Your task to perform on an android device: change keyboard looks Image 0: 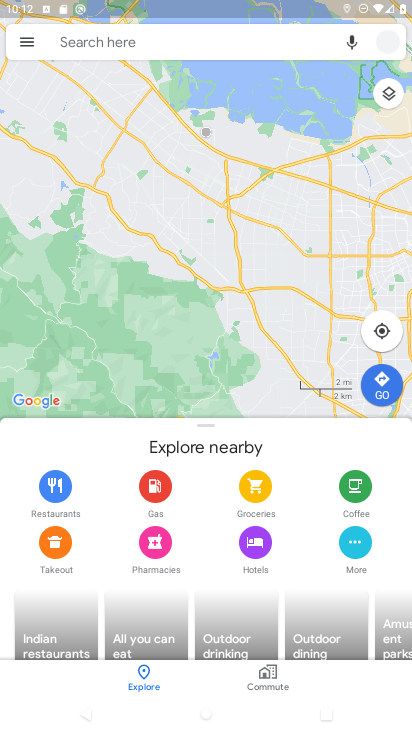
Step 0: press home button
Your task to perform on an android device: change keyboard looks Image 1: 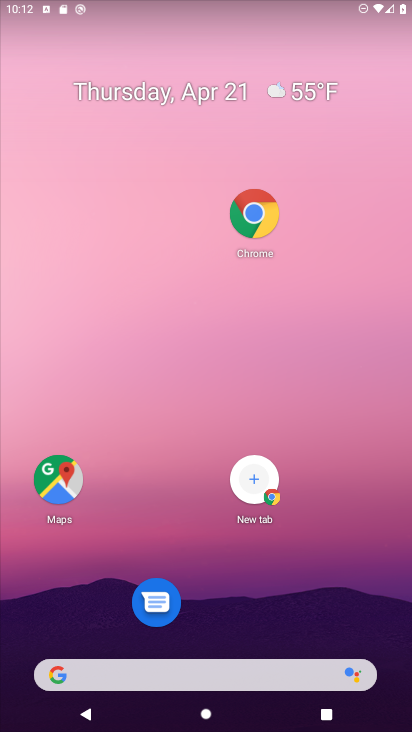
Step 1: drag from (209, 541) to (201, 105)
Your task to perform on an android device: change keyboard looks Image 2: 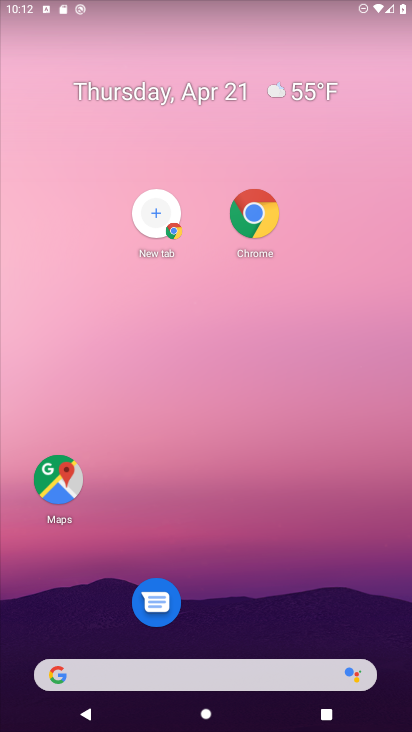
Step 2: drag from (272, 460) to (264, 102)
Your task to perform on an android device: change keyboard looks Image 3: 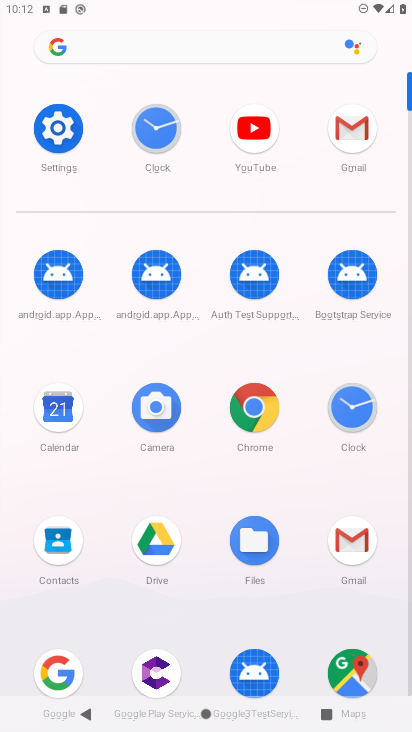
Step 3: click (74, 136)
Your task to perform on an android device: change keyboard looks Image 4: 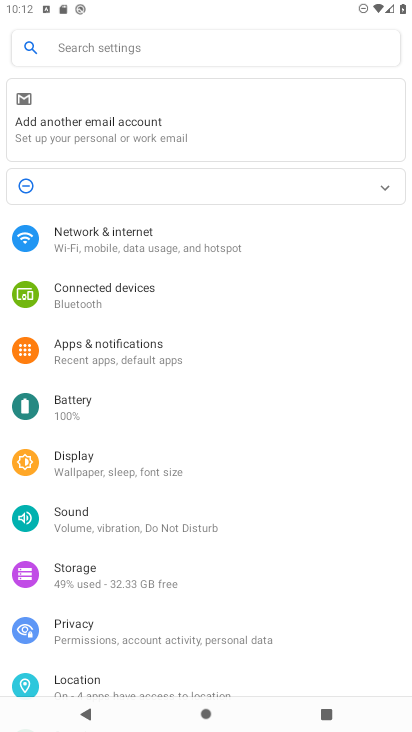
Step 4: drag from (93, 554) to (207, 82)
Your task to perform on an android device: change keyboard looks Image 5: 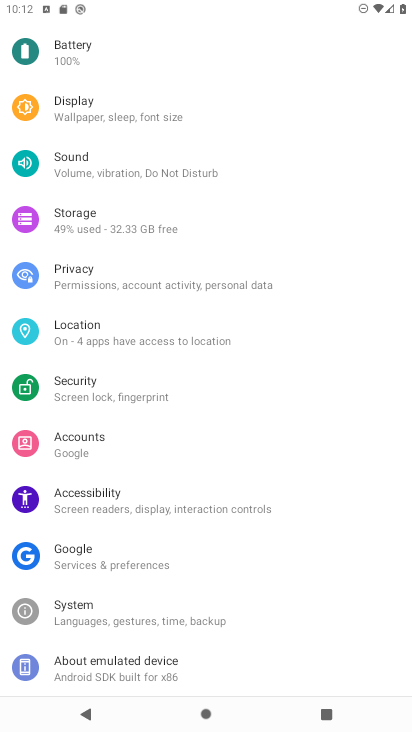
Step 5: click (73, 592)
Your task to perform on an android device: change keyboard looks Image 6: 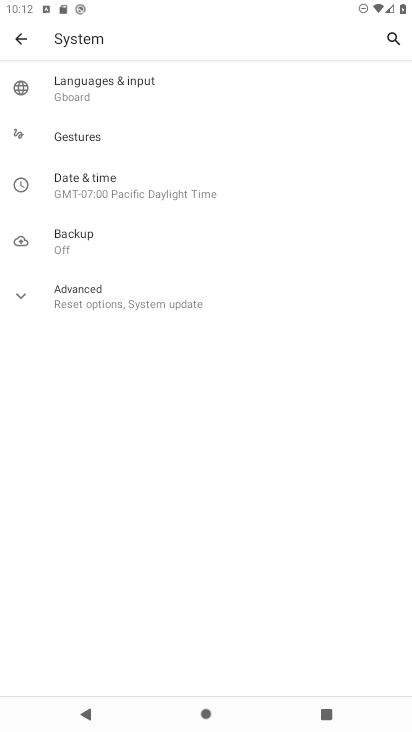
Step 6: click (186, 101)
Your task to perform on an android device: change keyboard looks Image 7: 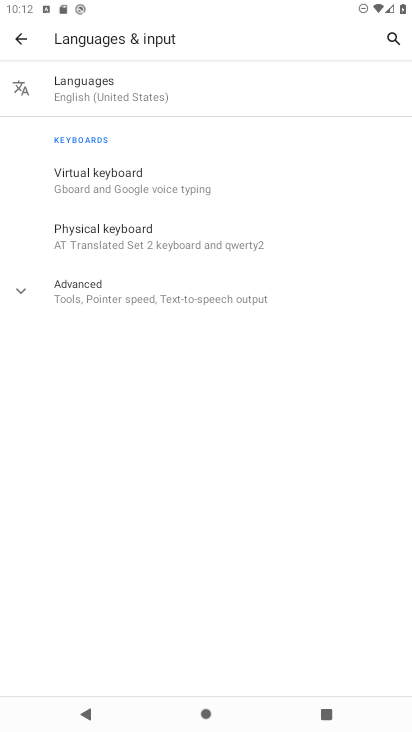
Step 7: click (144, 162)
Your task to perform on an android device: change keyboard looks Image 8: 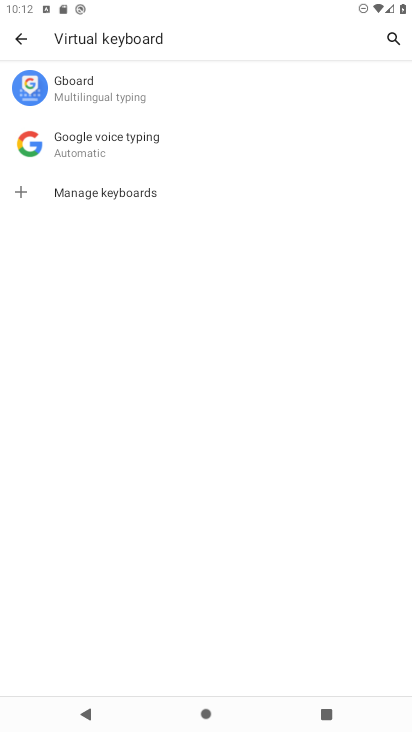
Step 8: click (135, 111)
Your task to perform on an android device: change keyboard looks Image 9: 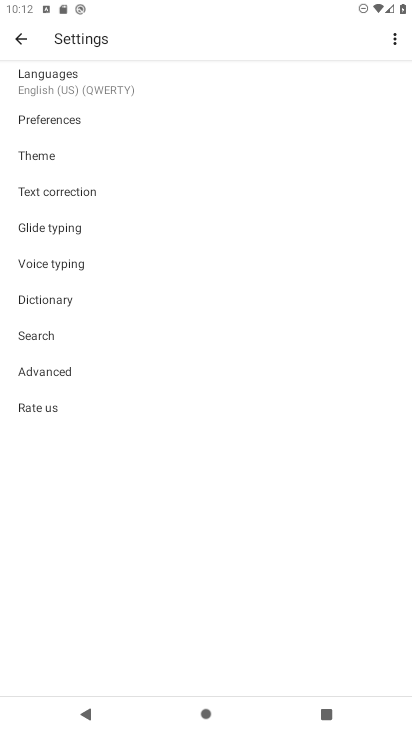
Step 9: click (39, 157)
Your task to perform on an android device: change keyboard looks Image 10: 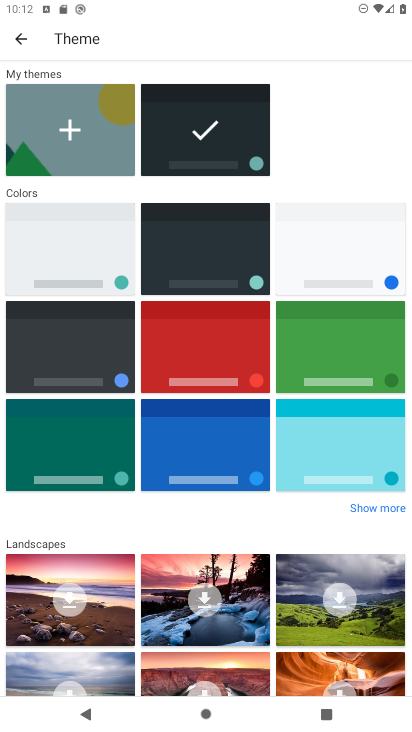
Step 10: click (208, 588)
Your task to perform on an android device: change keyboard looks Image 11: 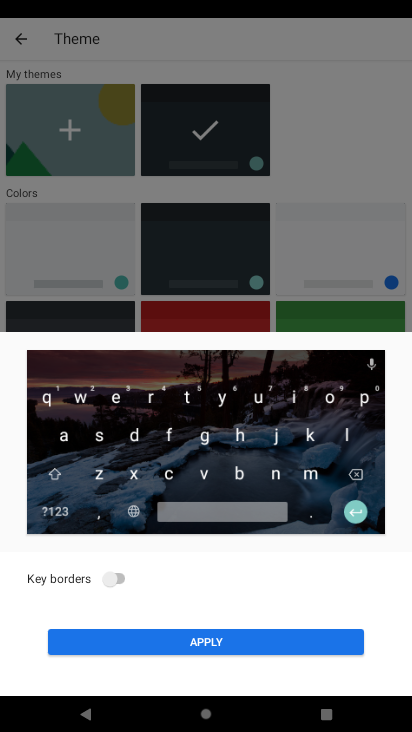
Step 11: click (131, 571)
Your task to perform on an android device: change keyboard looks Image 12: 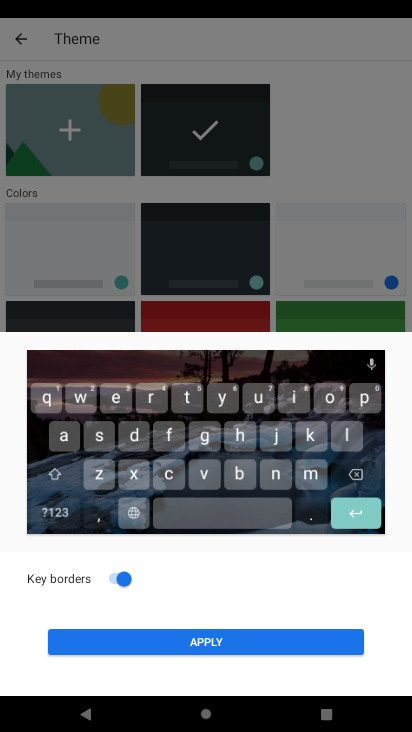
Step 12: click (131, 571)
Your task to perform on an android device: change keyboard looks Image 13: 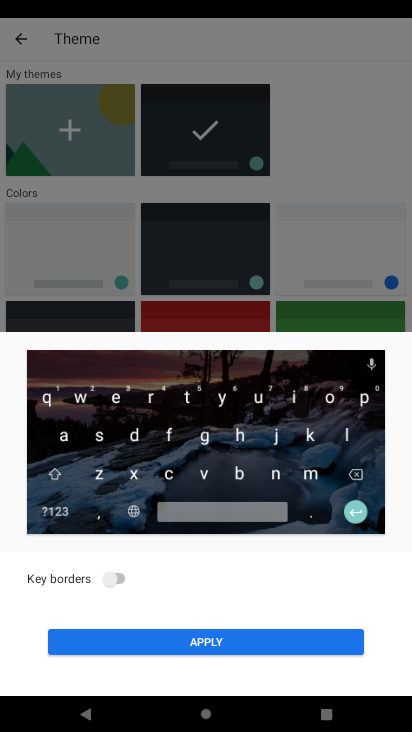
Step 13: click (280, 634)
Your task to perform on an android device: change keyboard looks Image 14: 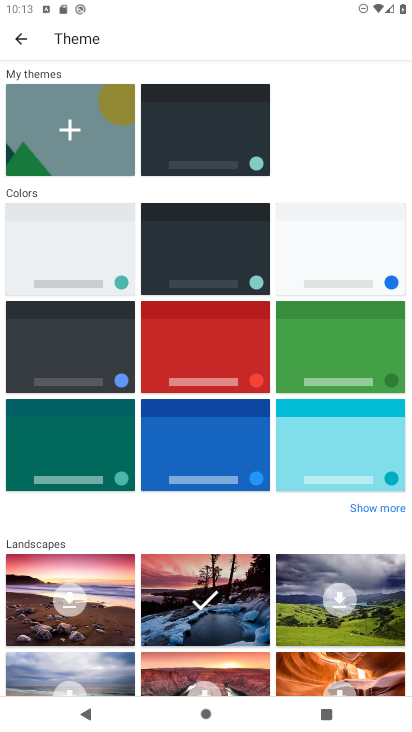
Step 14: task complete